Your task to perform on an android device: Do I have any events today? Image 0: 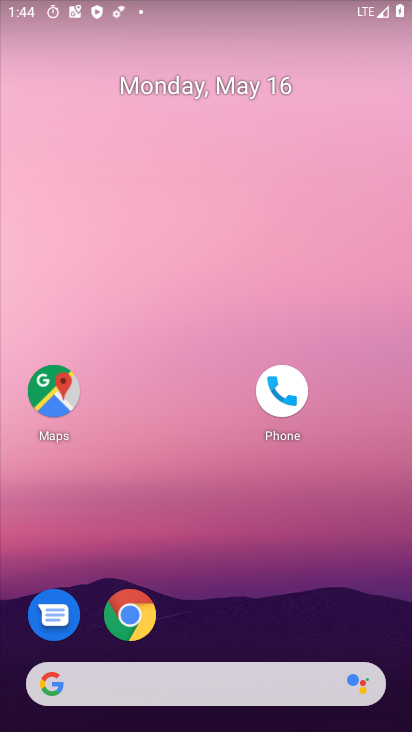
Step 0: drag from (300, 667) to (396, 230)
Your task to perform on an android device: Do I have any events today? Image 1: 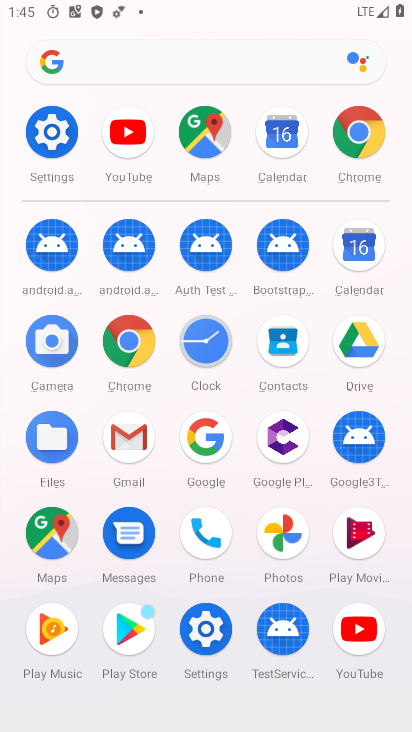
Step 1: click (365, 267)
Your task to perform on an android device: Do I have any events today? Image 2: 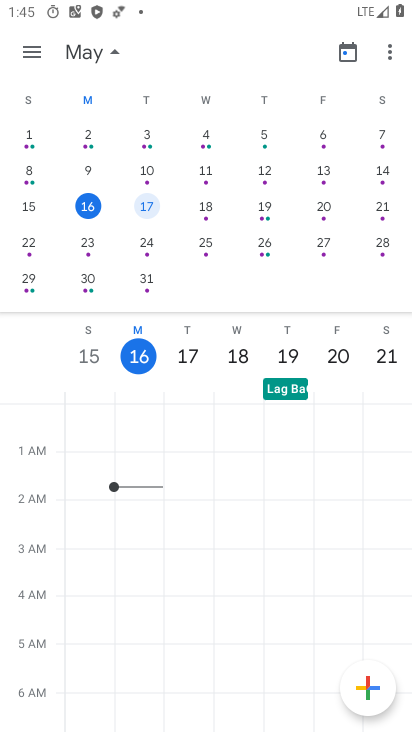
Step 2: click (290, 190)
Your task to perform on an android device: Do I have any events today? Image 3: 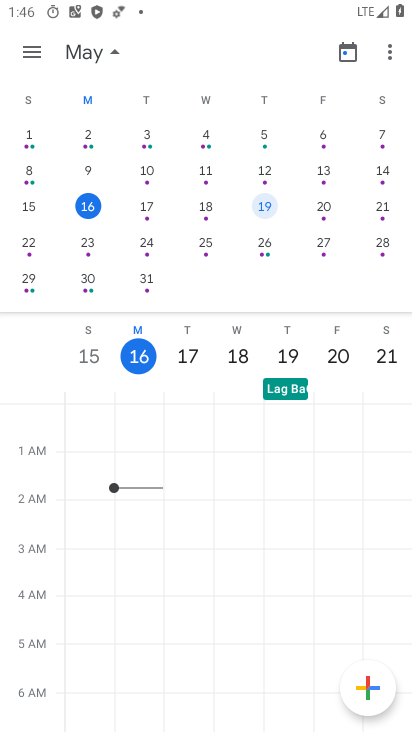
Step 3: task complete